Your task to perform on an android device: check out phone information Image 0: 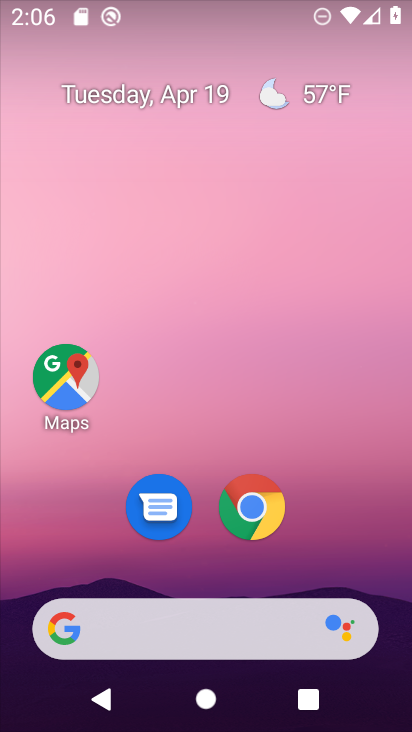
Step 0: drag from (330, 514) to (316, 41)
Your task to perform on an android device: check out phone information Image 1: 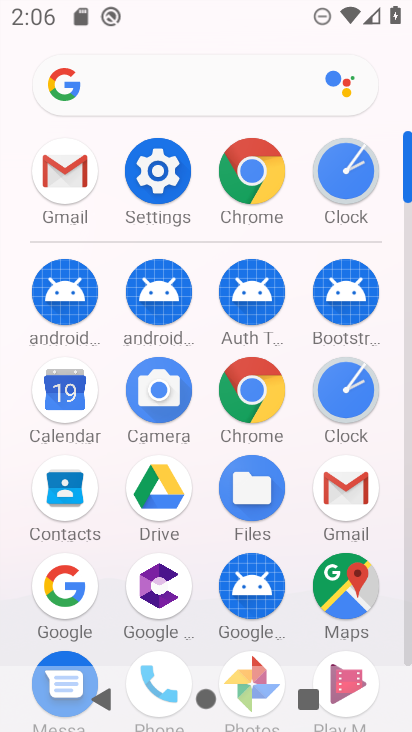
Step 1: click (179, 199)
Your task to perform on an android device: check out phone information Image 2: 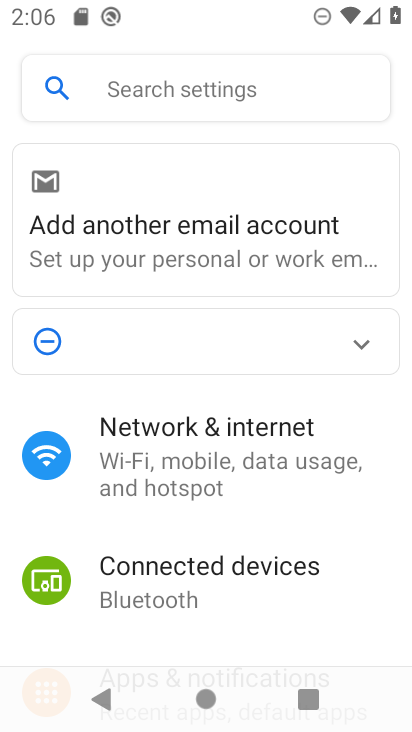
Step 2: drag from (164, 528) to (200, 178)
Your task to perform on an android device: check out phone information Image 3: 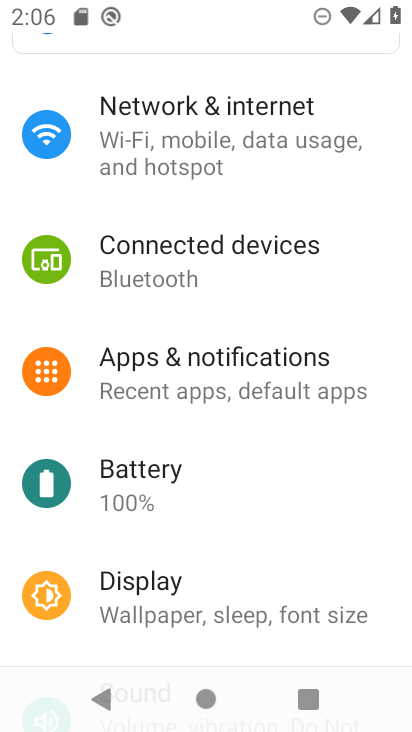
Step 3: drag from (265, 593) to (264, 216)
Your task to perform on an android device: check out phone information Image 4: 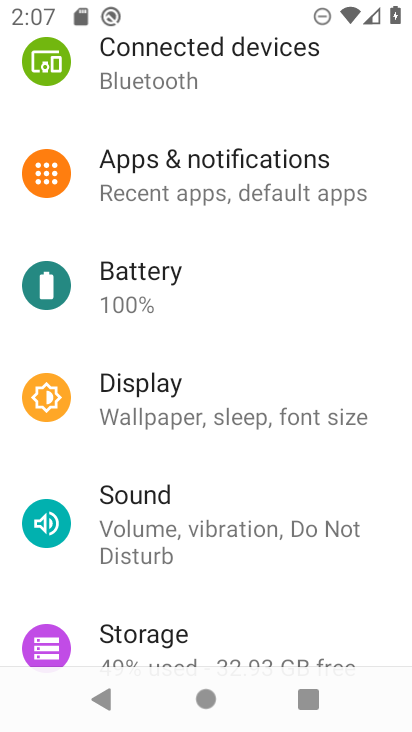
Step 4: drag from (270, 620) to (280, 320)
Your task to perform on an android device: check out phone information Image 5: 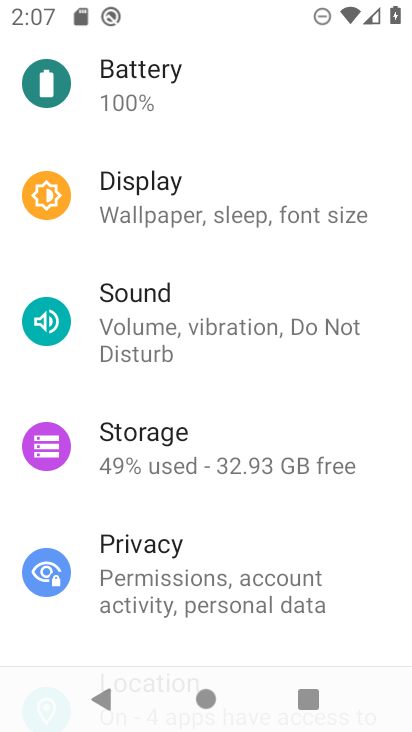
Step 5: drag from (294, 527) to (304, 321)
Your task to perform on an android device: check out phone information Image 6: 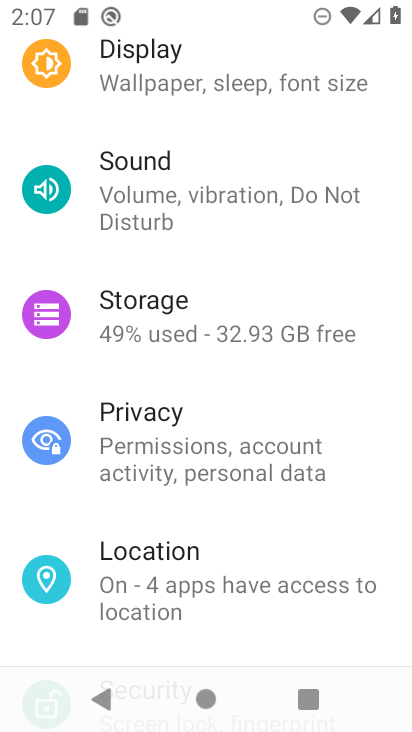
Step 6: drag from (269, 583) to (277, 362)
Your task to perform on an android device: check out phone information Image 7: 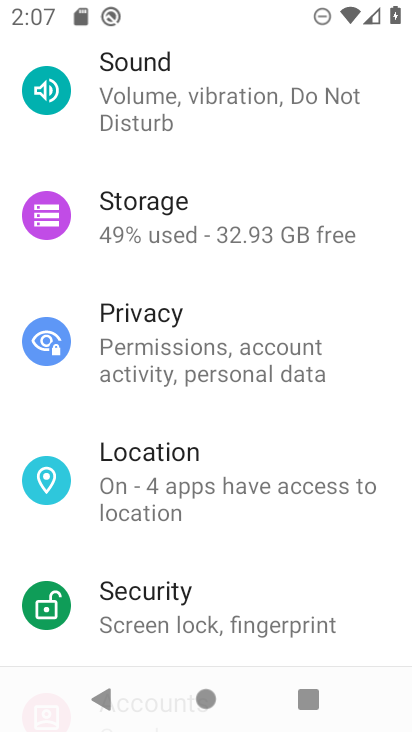
Step 7: drag from (291, 536) to (312, 155)
Your task to perform on an android device: check out phone information Image 8: 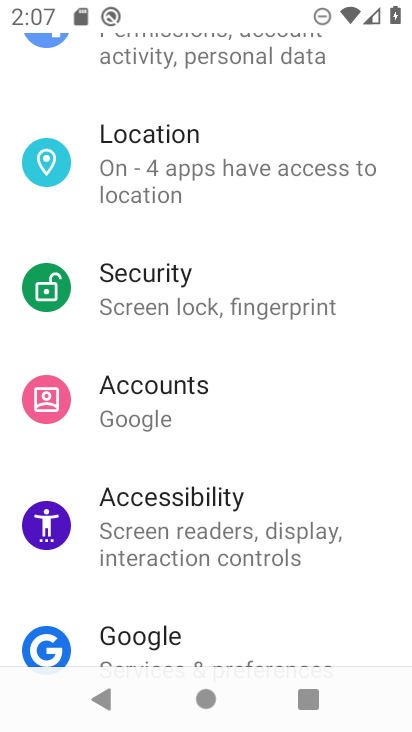
Step 8: drag from (246, 568) to (246, 171)
Your task to perform on an android device: check out phone information Image 9: 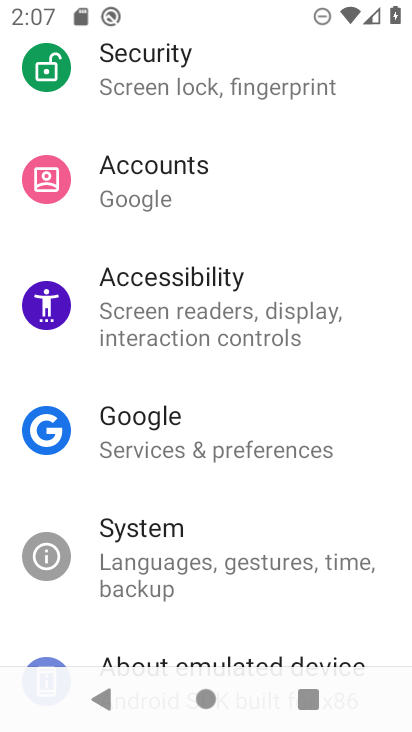
Step 9: click (277, 626)
Your task to perform on an android device: check out phone information Image 10: 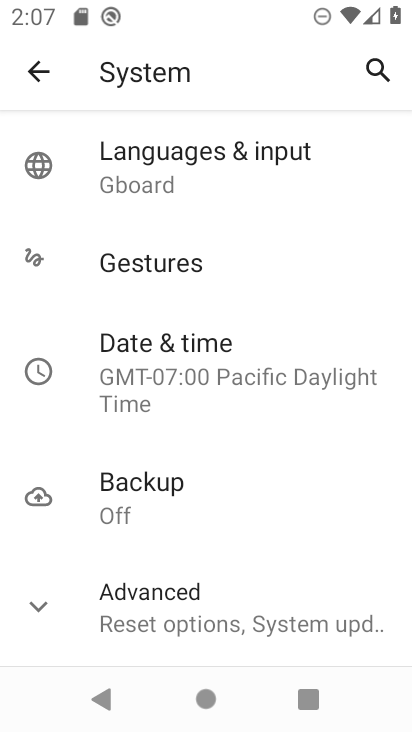
Step 10: click (38, 63)
Your task to perform on an android device: check out phone information Image 11: 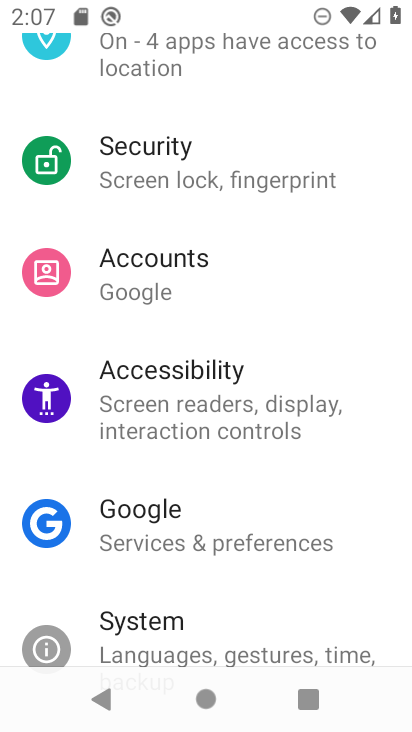
Step 11: drag from (197, 585) to (256, 163)
Your task to perform on an android device: check out phone information Image 12: 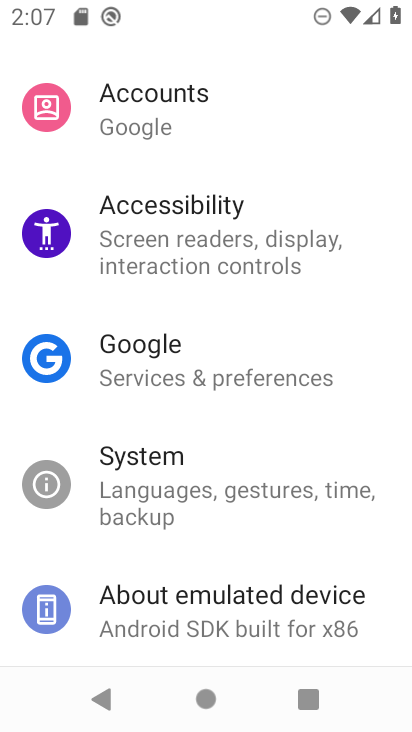
Step 12: click (235, 635)
Your task to perform on an android device: check out phone information Image 13: 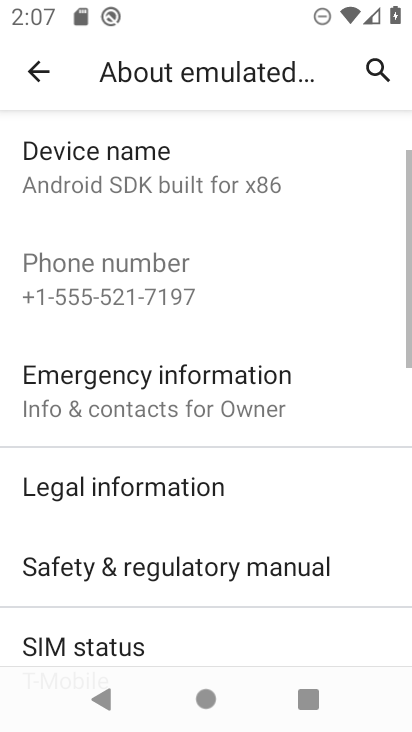
Step 13: task complete